Your task to perform on an android device: Open location settings Image 0: 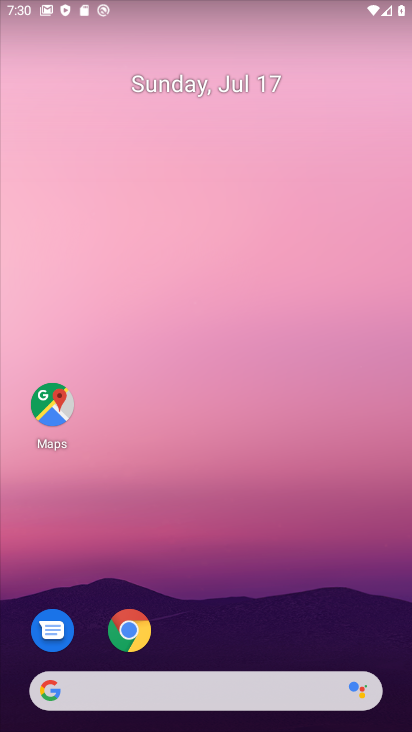
Step 0: drag from (186, 621) to (190, 256)
Your task to perform on an android device: Open location settings Image 1: 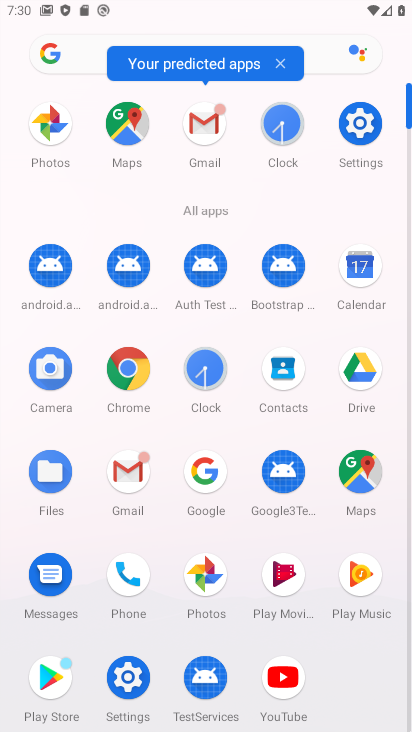
Step 1: click (362, 127)
Your task to perform on an android device: Open location settings Image 2: 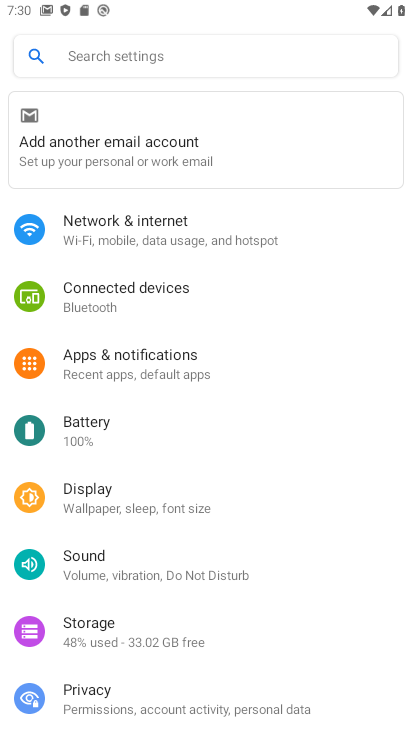
Step 2: drag from (111, 623) to (124, 184)
Your task to perform on an android device: Open location settings Image 3: 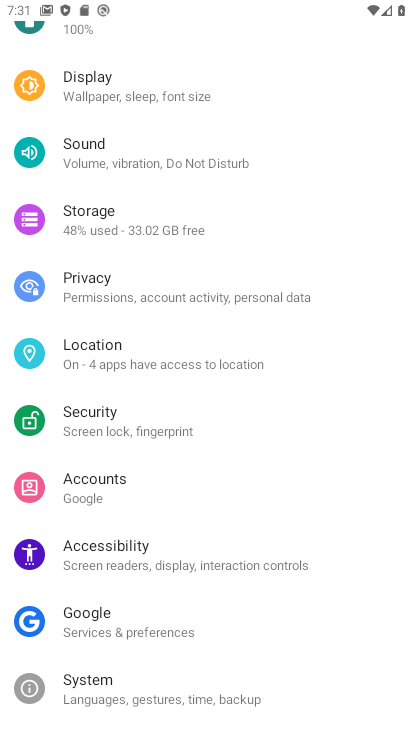
Step 3: click (111, 349)
Your task to perform on an android device: Open location settings Image 4: 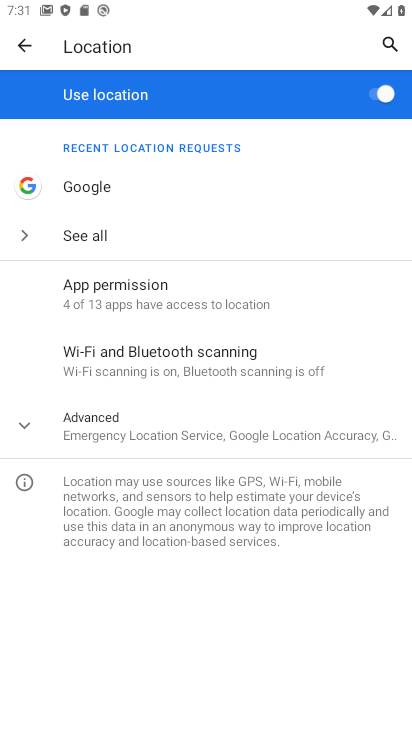
Step 4: task complete